Your task to perform on an android device: Open Youtube and go to "Your channel" Image 0: 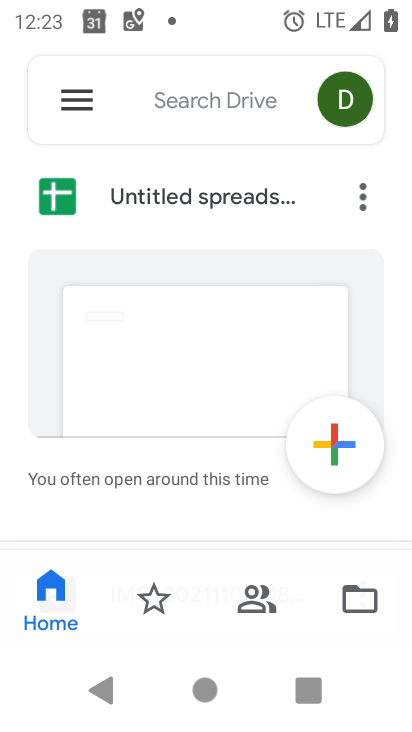
Step 0: press home button
Your task to perform on an android device: Open Youtube and go to "Your channel" Image 1: 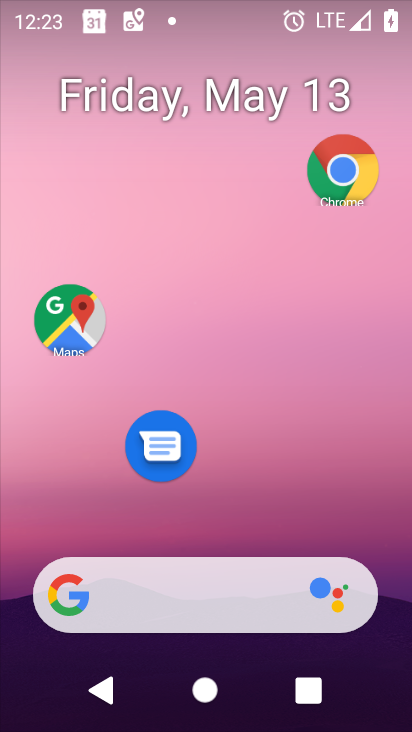
Step 1: drag from (324, 646) to (261, 10)
Your task to perform on an android device: Open Youtube and go to "Your channel" Image 2: 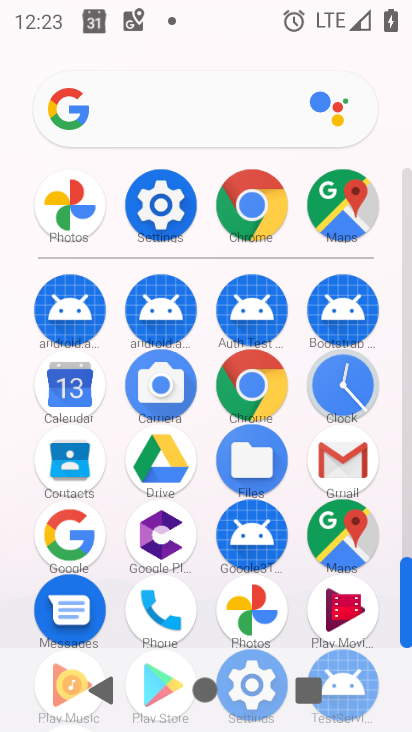
Step 2: drag from (293, 628) to (296, 246)
Your task to perform on an android device: Open Youtube and go to "Your channel" Image 3: 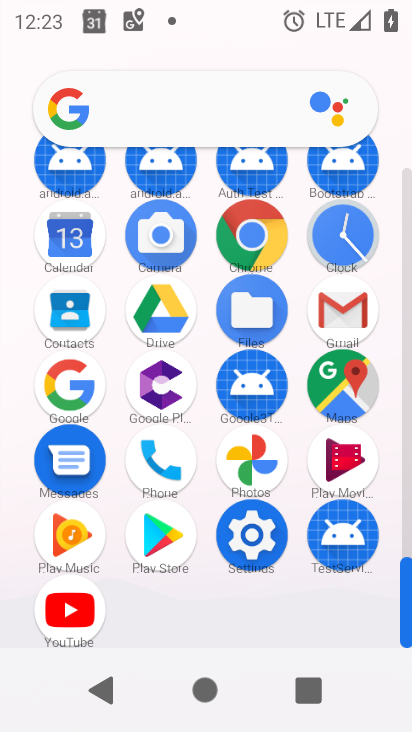
Step 3: click (69, 626)
Your task to perform on an android device: Open Youtube and go to "Your channel" Image 4: 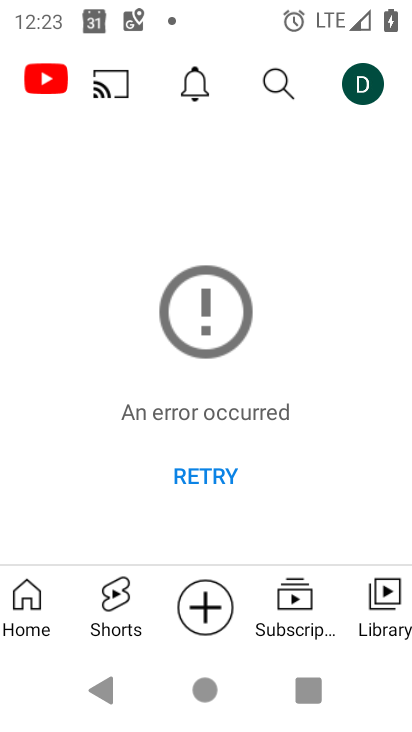
Step 4: click (399, 614)
Your task to perform on an android device: Open Youtube and go to "Your channel" Image 5: 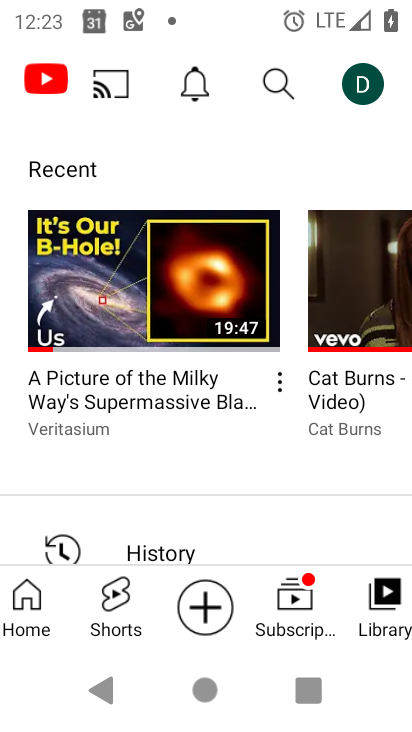
Step 5: click (352, 72)
Your task to perform on an android device: Open Youtube and go to "Your channel" Image 6: 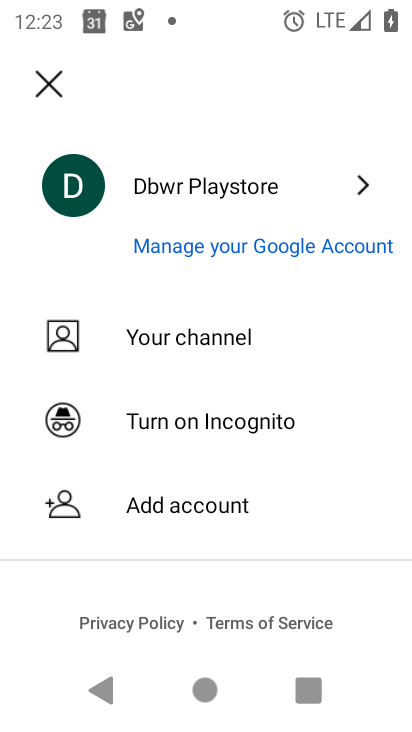
Step 6: click (240, 332)
Your task to perform on an android device: Open Youtube and go to "Your channel" Image 7: 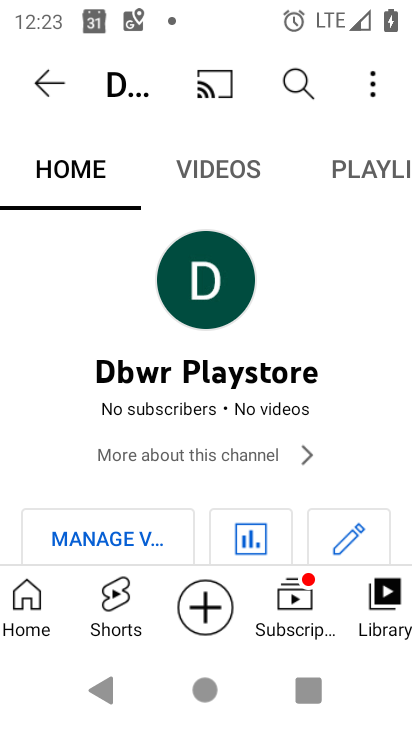
Step 7: task complete